Your task to perform on an android device: Open location settings Image 0: 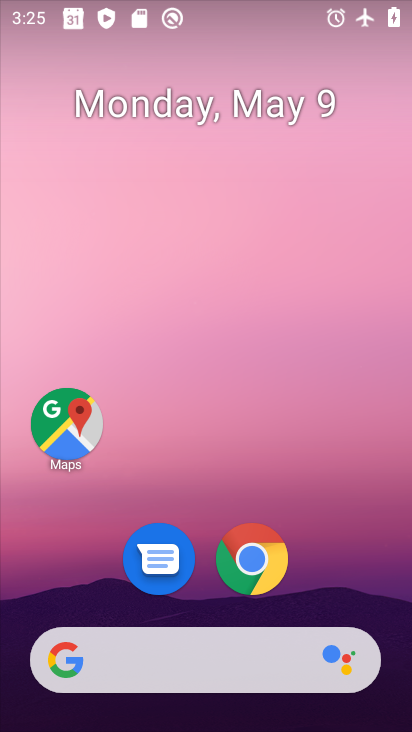
Step 0: drag from (219, 719) to (227, 191)
Your task to perform on an android device: Open location settings Image 1: 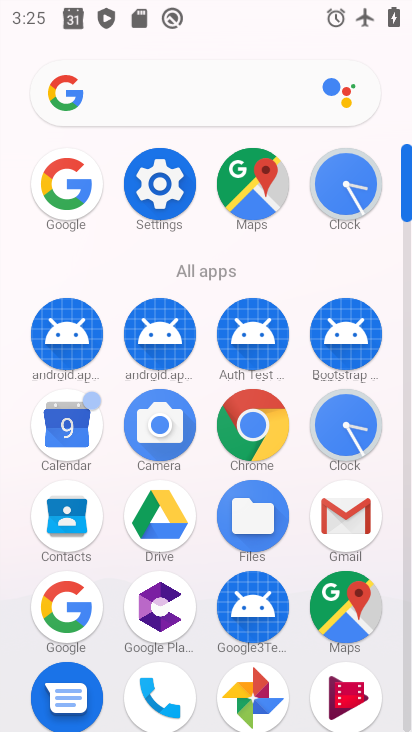
Step 1: click (158, 187)
Your task to perform on an android device: Open location settings Image 2: 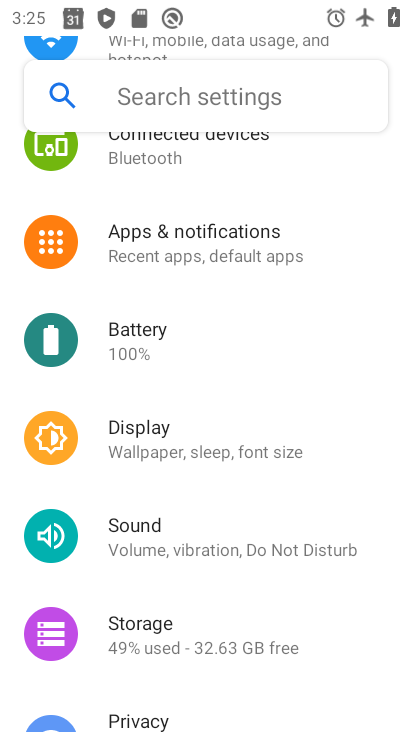
Step 2: click (208, 191)
Your task to perform on an android device: Open location settings Image 3: 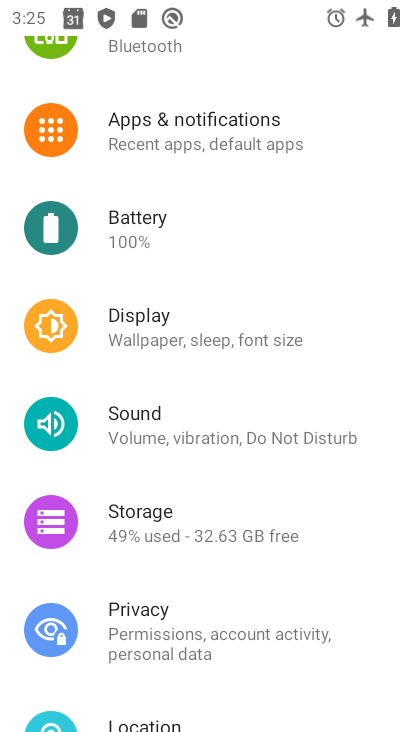
Step 3: drag from (198, 686) to (213, 372)
Your task to perform on an android device: Open location settings Image 4: 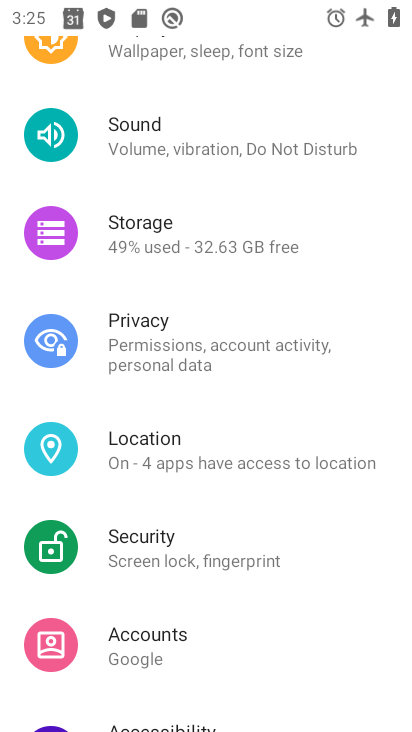
Step 4: click (153, 443)
Your task to perform on an android device: Open location settings Image 5: 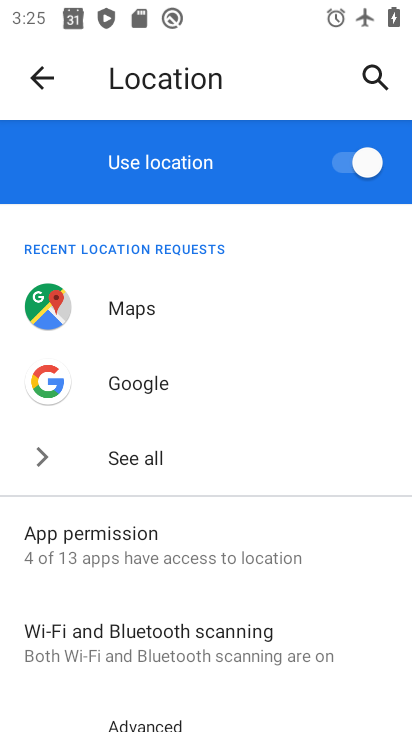
Step 5: task complete